Your task to perform on an android device: move an email to a new category in the gmail app Image 0: 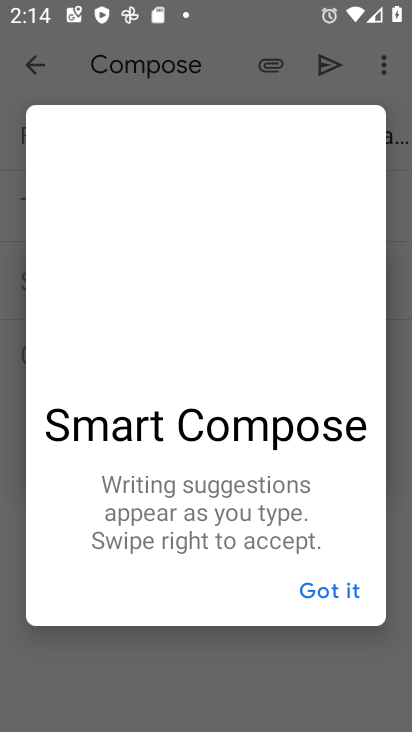
Step 0: click (351, 583)
Your task to perform on an android device: move an email to a new category in the gmail app Image 1: 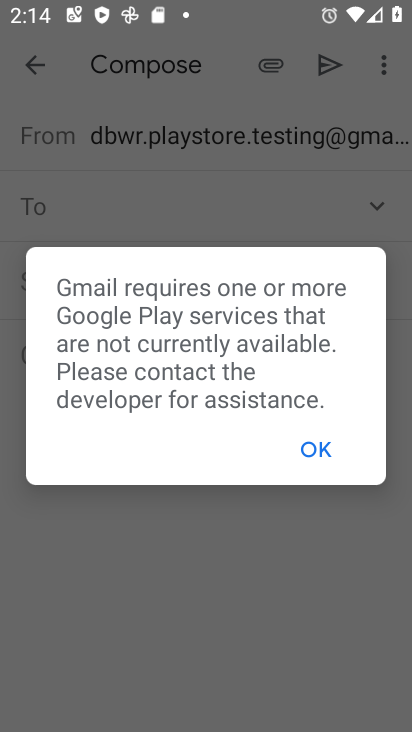
Step 1: press home button
Your task to perform on an android device: move an email to a new category in the gmail app Image 2: 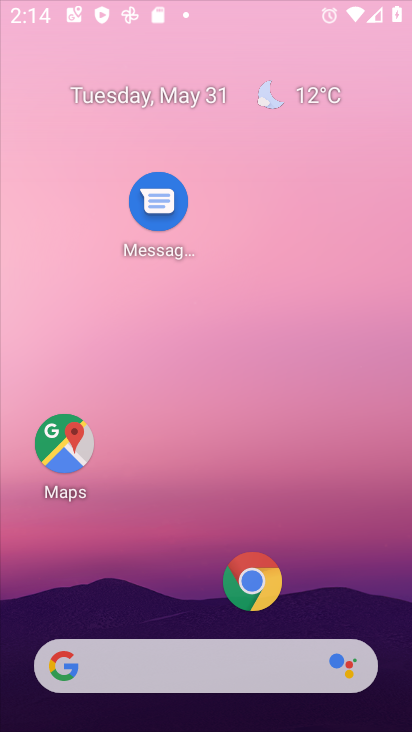
Step 2: drag from (322, 625) to (303, 119)
Your task to perform on an android device: move an email to a new category in the gmail app Image 3: 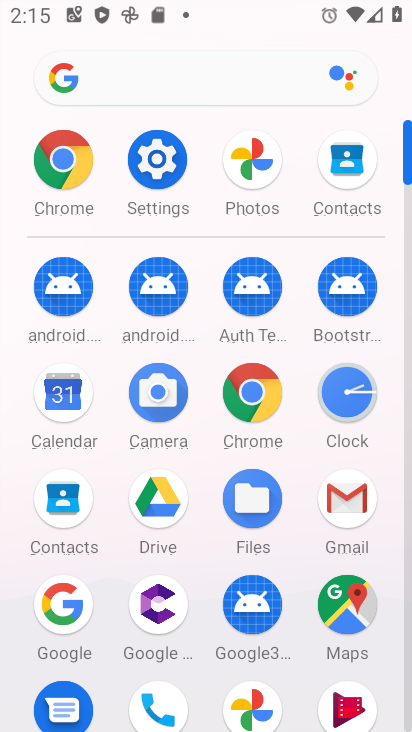
Step 3: click (343, 493)
Your task to perform on an android device: move an email to a new category in the gmail app Image 4: 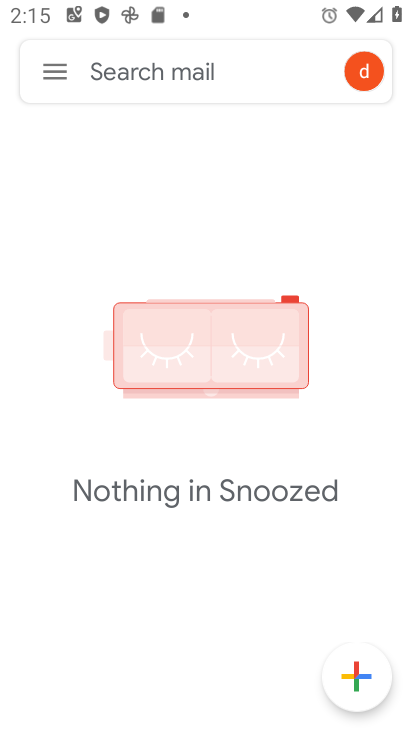
Step 4: task complete